Your task to perform on an android device: Go to Reddit.com Image 0: 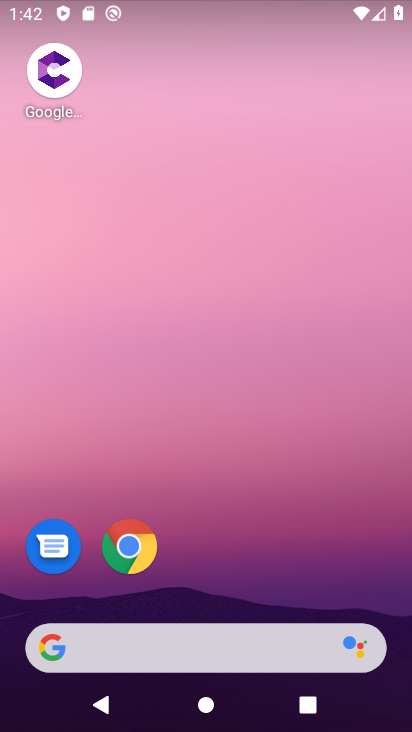
Step 0: drag from (203, 605) to (365, 37)
Your task to perform on an android device: Go to Reddit.com Image 1: 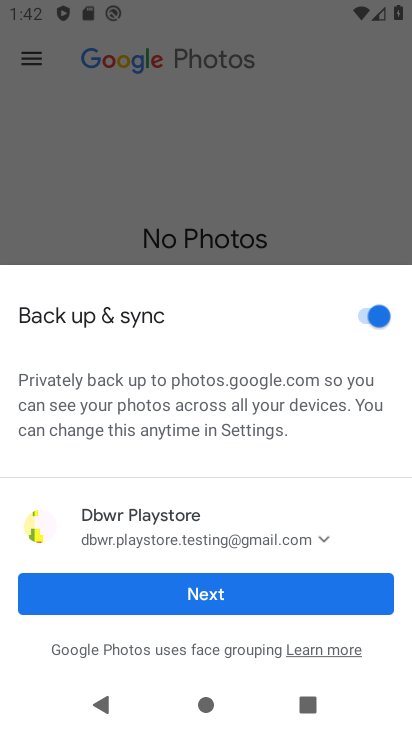
Step 1: press home button
Your task to perform on an android device: Go to Reddit.com Image 2: 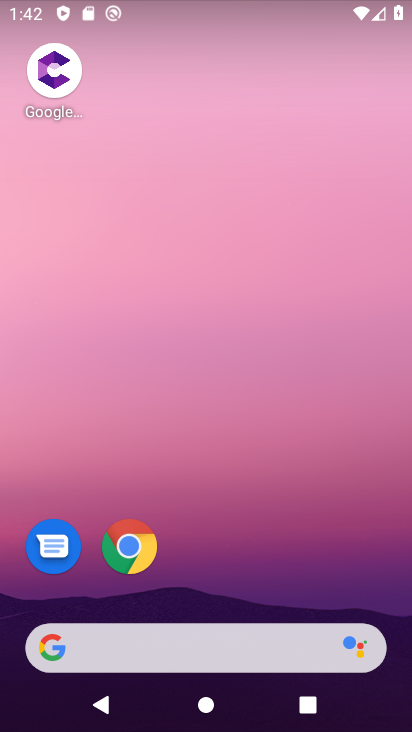
Step 2: click (388, 23)
Your task to perform on an android device: Go to Reddit.com Image 3: 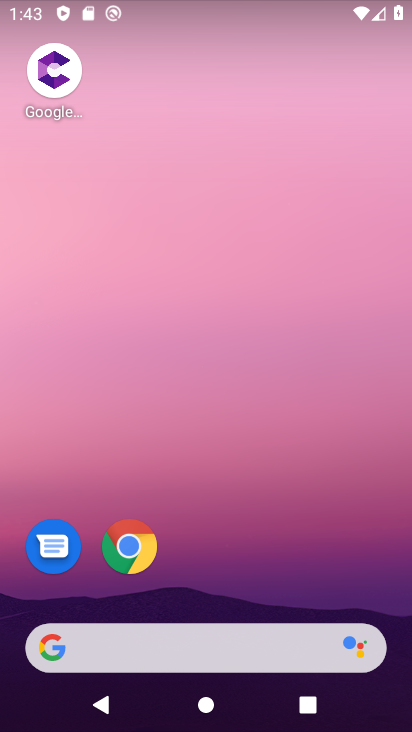
Step 3: click (150, 531)
Your task to perform on an android device: Go to Reddit.com Image 4: 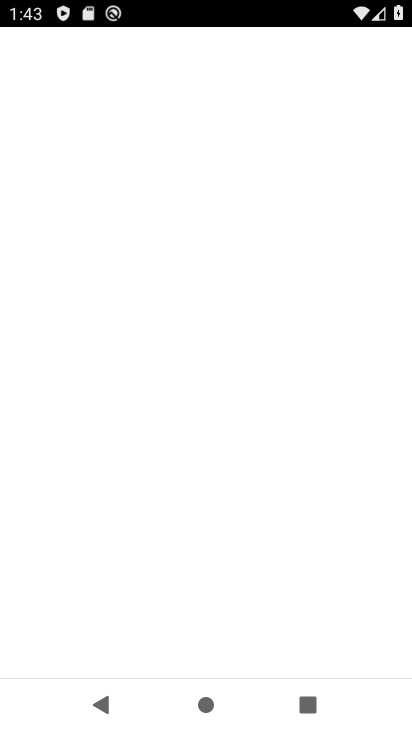
Step 4: click (137, 565)
Your task to perform on an android device: Go to Reddit.com Image 5: 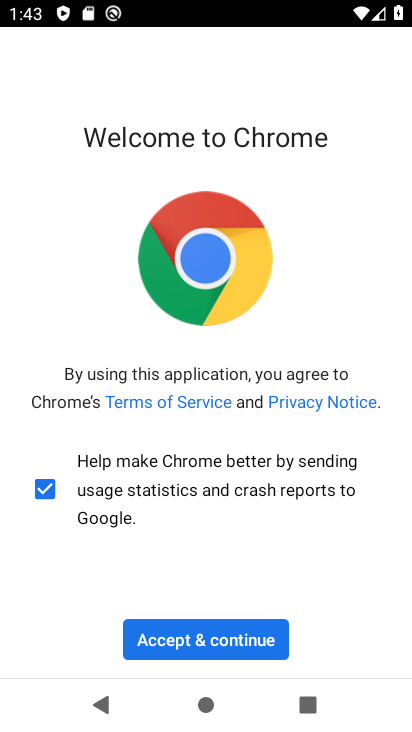
Step 5: click (204, 650)
Your task to perform on an android device: Go to Reddit.com Image 6: 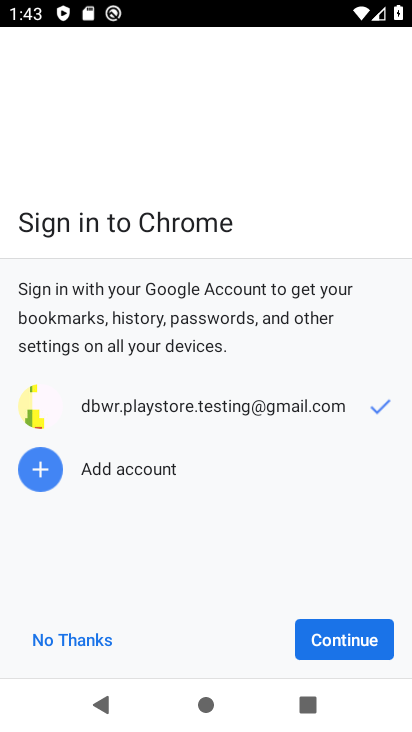
Step 6: click (308, 649)
Your task to perform on an android device: Go to Reddit.com Image 7: 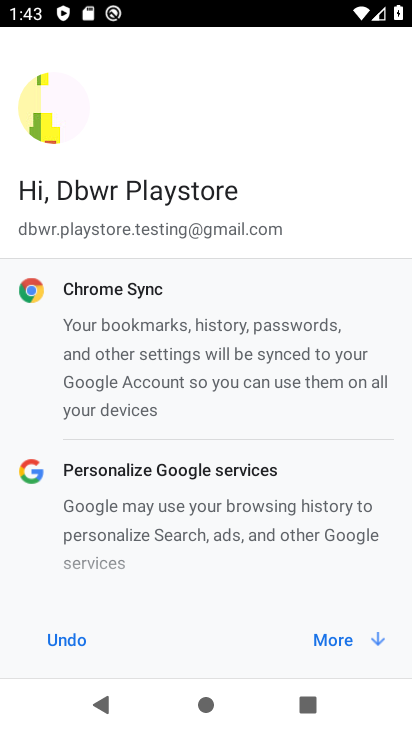
Step 7: click (319, 645)
Your task to perform on an android device: Go to Reddit.com Image 8: 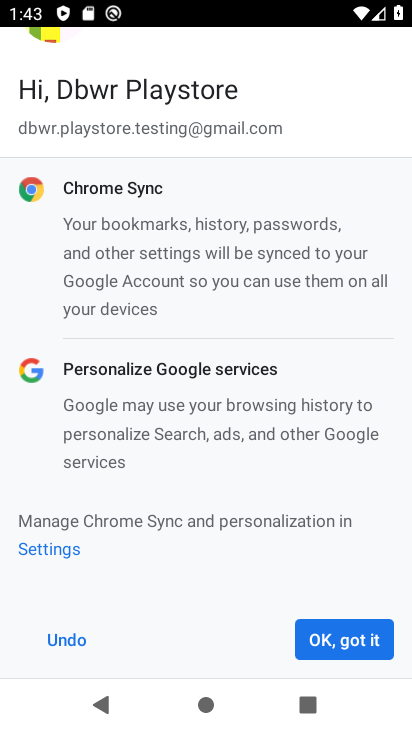
Step 8: click (320, 644)
Your task to perform on an android device: Go to Reddit.com Image 9: 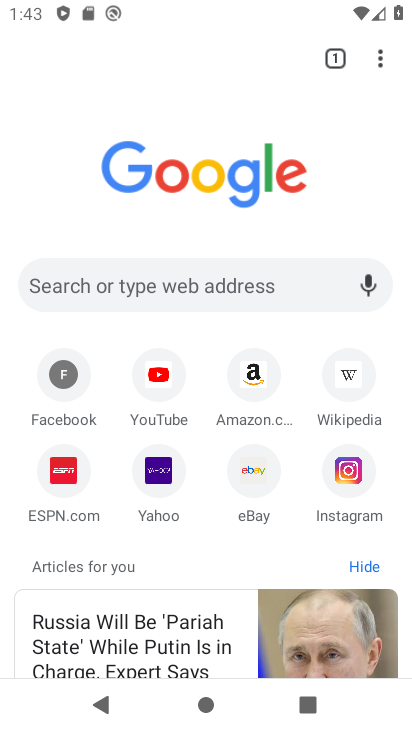
Step 9: click (250, 287)
Your task to perform on an android device: Go to Reddit.com Image 10: 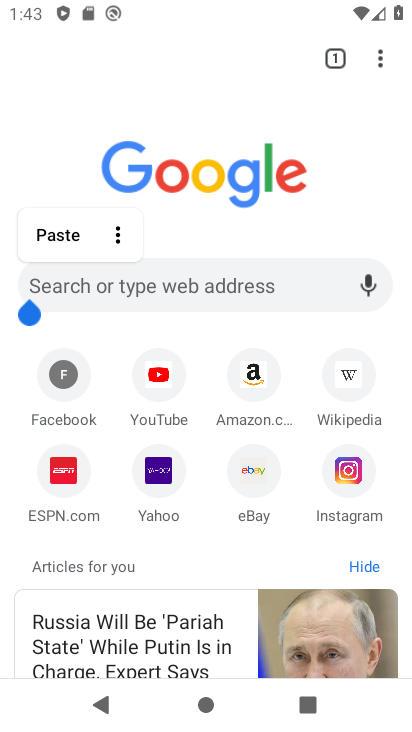
Step 10: click (267, 291)
Your task to perform on an android device: Go to Reddit.com Image 11: 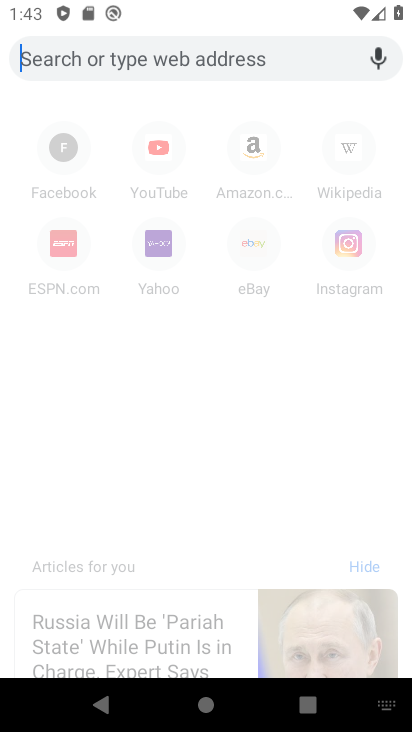
Step 11: type "reddit.com"
Your task to perform on an android device: Go to Reddit.com Image 12: 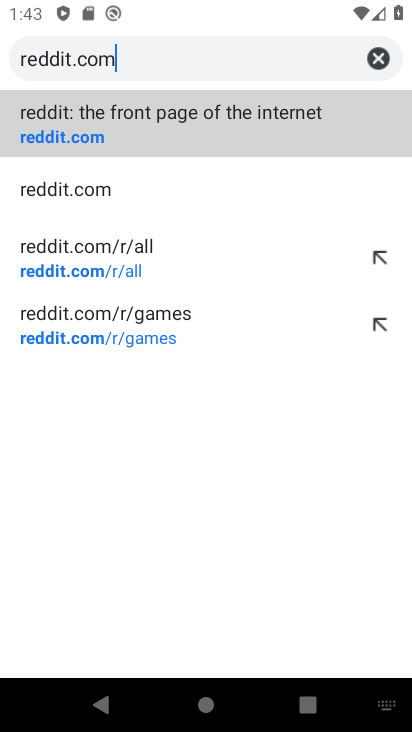
Step 12: click (172, 116)
Your task to perform on an android device: Go to Reddit.com Image 13: 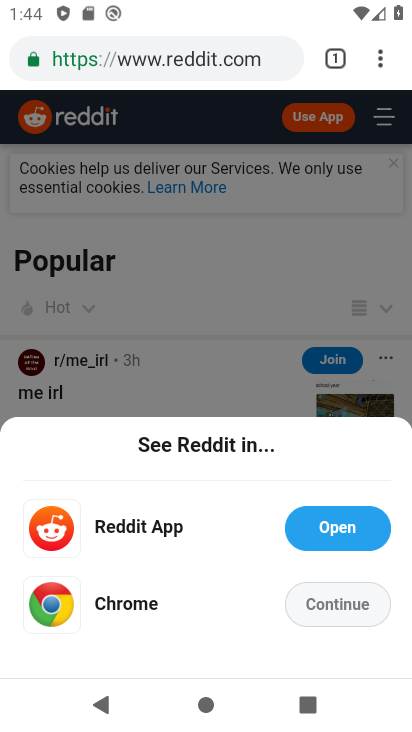
Step 13: click (327, 589)
Your task to perform on an android device: Go to Reddit.com Image 14: 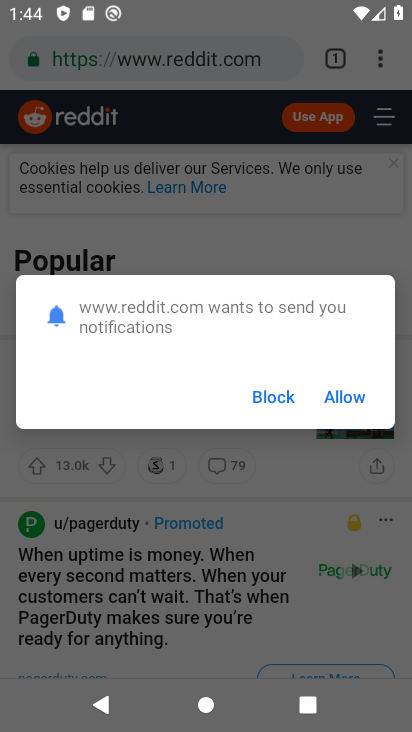
Step 14: click (270, 407)
Your task to perform on an android device: Go to Reddit.com Image 15: 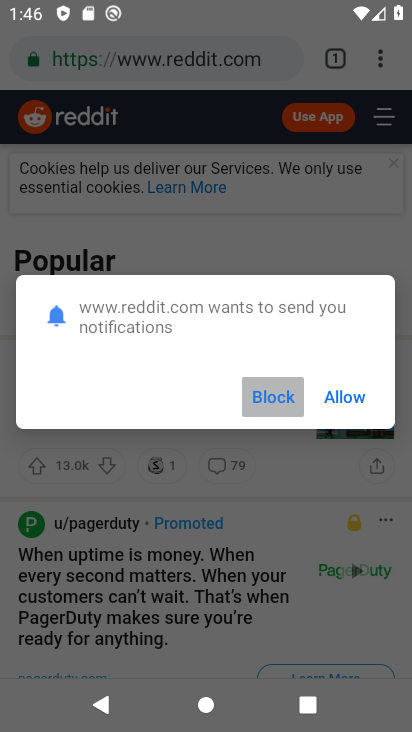
Step 15: task complete